Your task to perform on an android device: Open Google Chrome and open the bookmarks view Image 0: 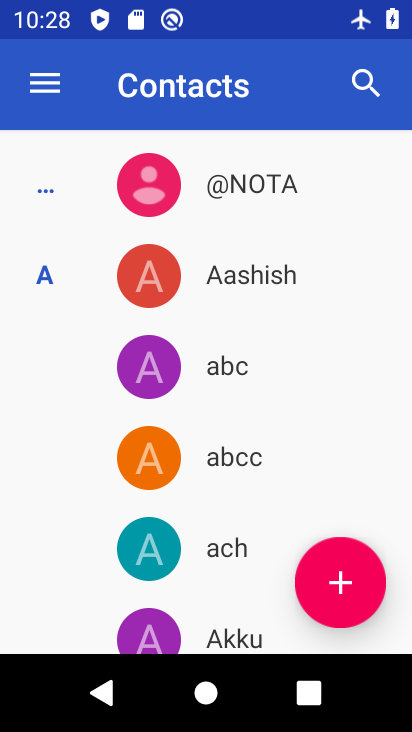
Step 0: press home button
Your task to perform on an android device: Open Google Chrome and open the bookmarks view Image 1: 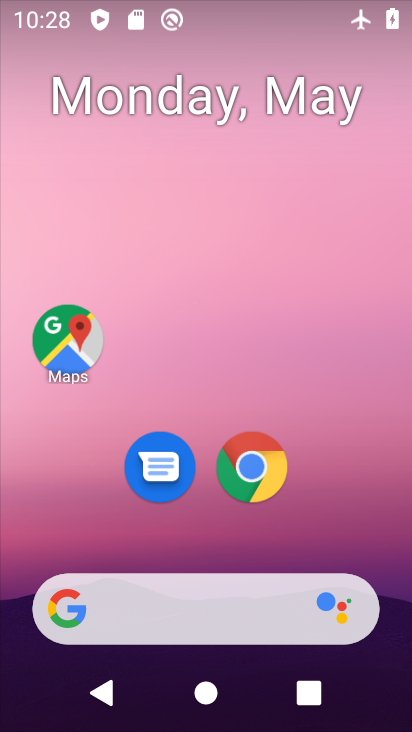
Step 1: click (261, 466)
Your task to perform on an android device: Open Google Chrome and open the bookmarks view Image 2: 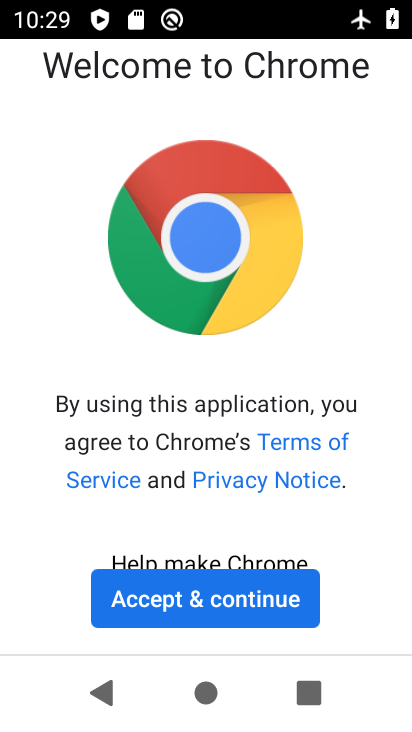
Step 2: click (140, 589)
Your task to perform on an android device: Open Google Chrome and open the bookmarks view Image 3: 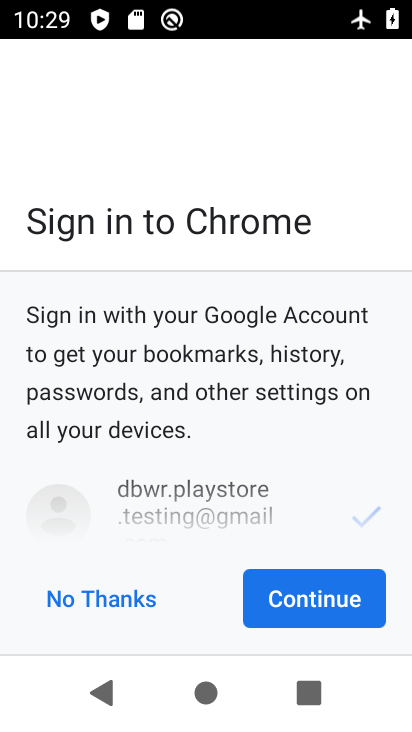
Step 3: click (345, 586)
Your task to perform on an android device: Open Google Chrome and open the bookmarks view Image 4: 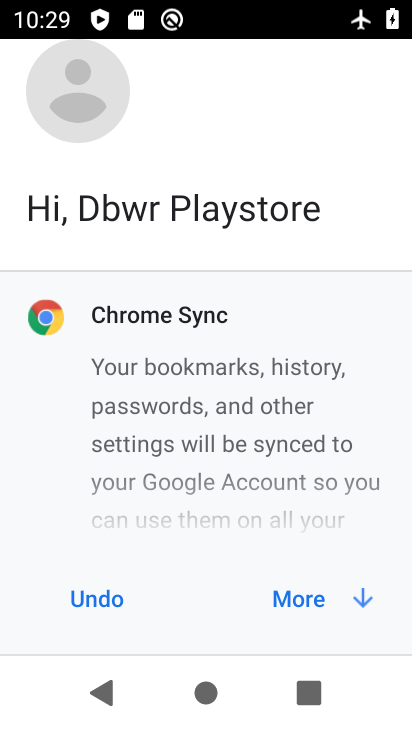
Step 4: click (302, 602)
Your task to perform on an android device: Open Google Chrome and open the bookmarks view Image 5: 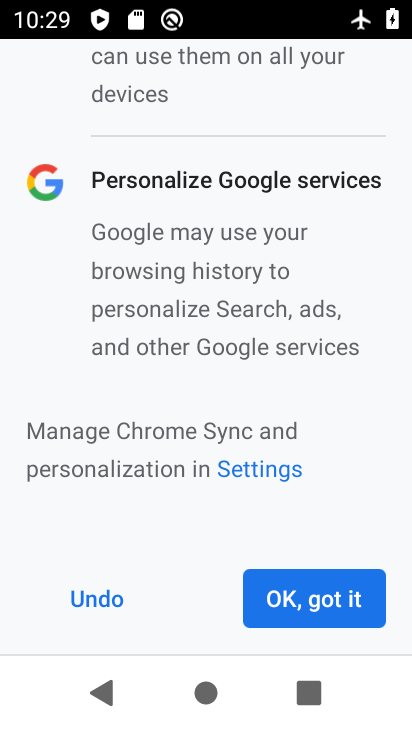
Step 5: click (295, 598)
Your task to perform on an android device: Open Google Chrome and open the bookmarks view Image 6: 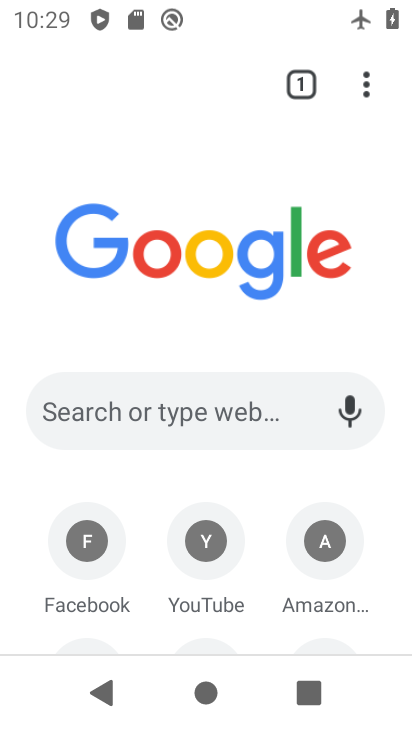
Step 6: click (364, 96)
Your task to perform on an android device: Open Google Chrome and open the bookmarks view Image 7: 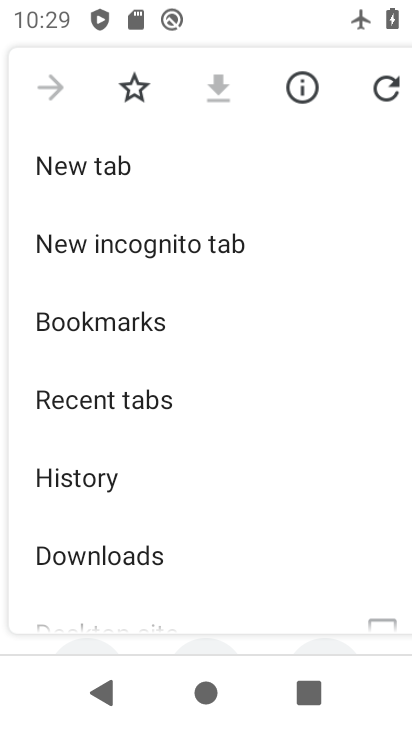
Step 7: click (91, 326)
Your task to perform on an android device: Open Google Chrome and open the bookmarks view Image 8: 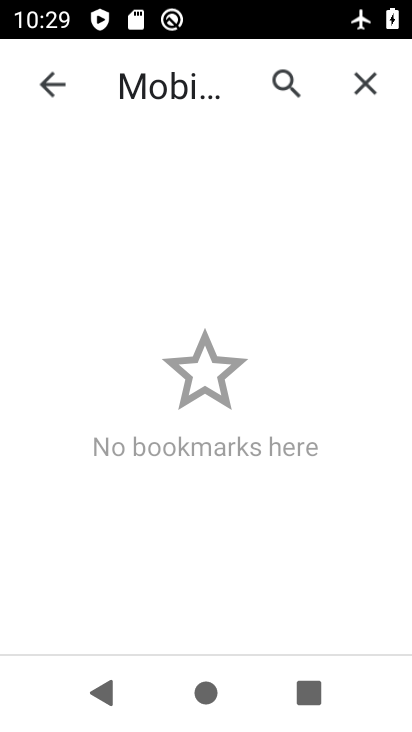
Step 8: task complete